Your task to perform on an android device: Go to CNN.com Image 0: 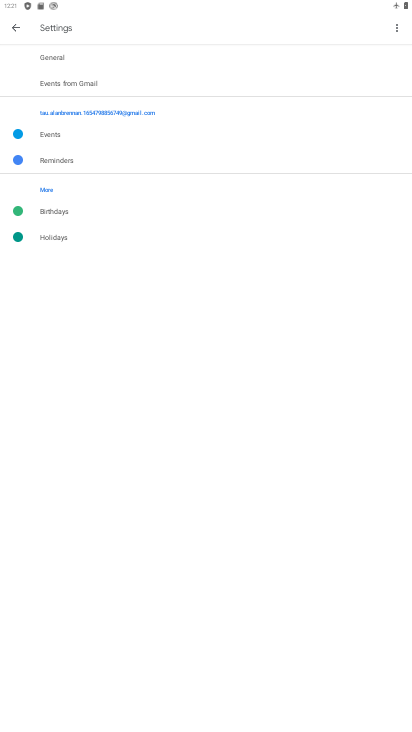
Step 0: press home button
Your task to perform on an android device: Go to CNN.com Image 1: 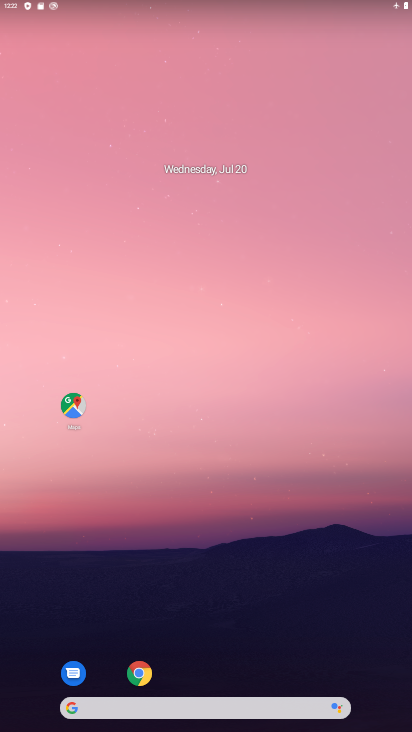
Step 1: click (134, 678)
Your task to perform on an android device: Go to CNN.com Image 2: 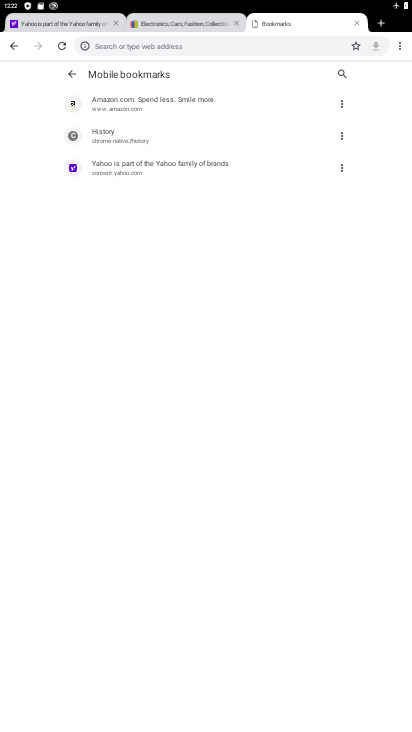
Step 2: click (162, 42)
Your task to perform on an android device: Go to CNN.com Image 3: 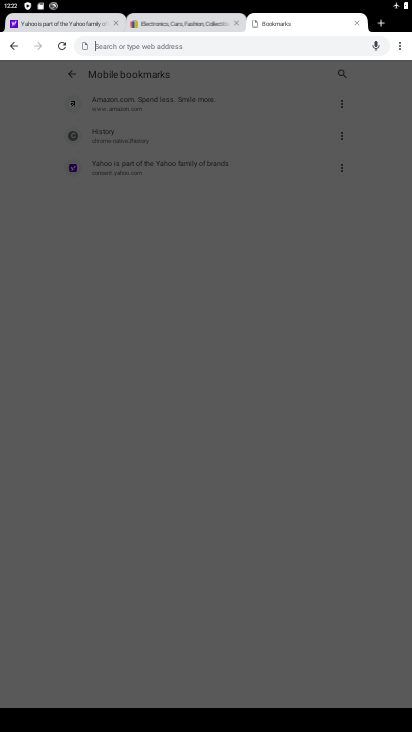
Step 3: type "cnn.cpm"
Your task to perform on an android device: Go to CNN.com Image 4: 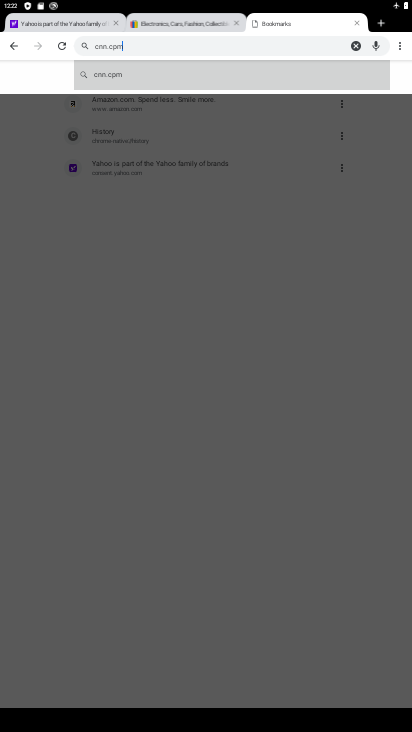
Step 4: click (284, 80)
Your task to perform on an android device: Go to CNN.com Image 5: 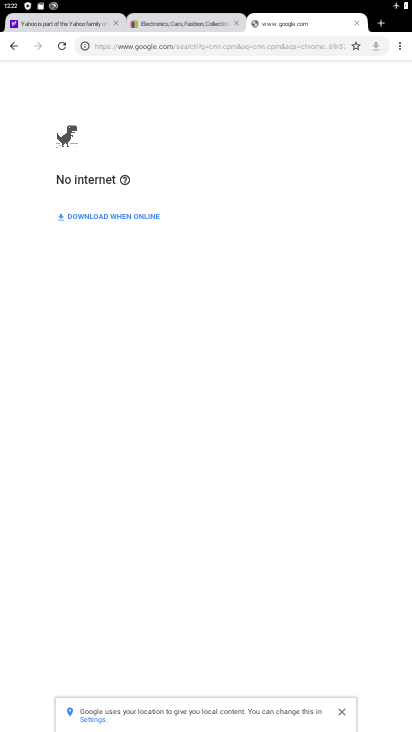
Step 5: task complete